Your task to perform on an android device: check storage Image 0: 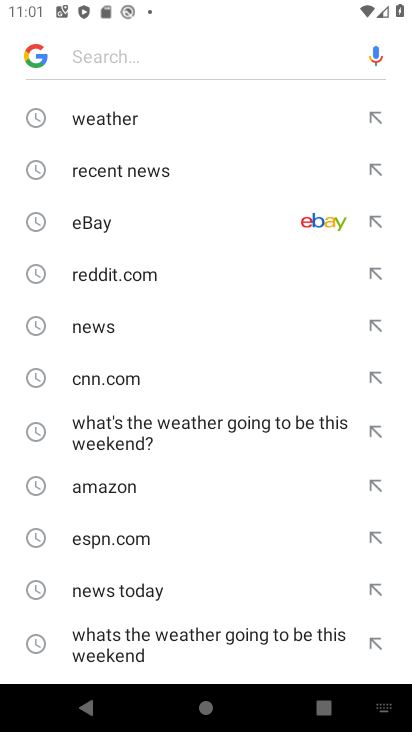
Step 0: press home button
Your task to perform on an android device: check storage Image 1: 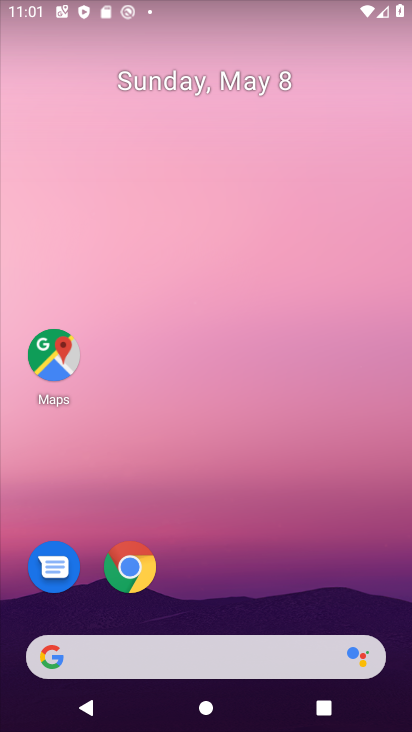
Step 1: drag from (216, 607) to (263, 146)
Your task to perform on an android device: check storage Image 2: 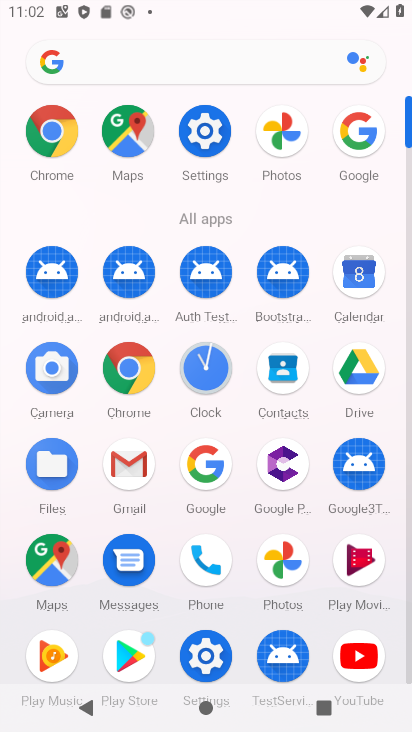
Step 2: click (201, 653)
Your task to perform on an android device: check storage Image 3: 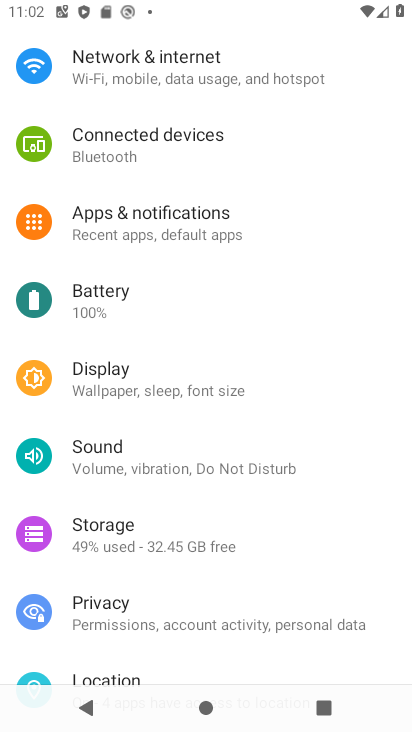
Step 3: click (140, 518)
Your task to perform on an android device: check storage Image 4: 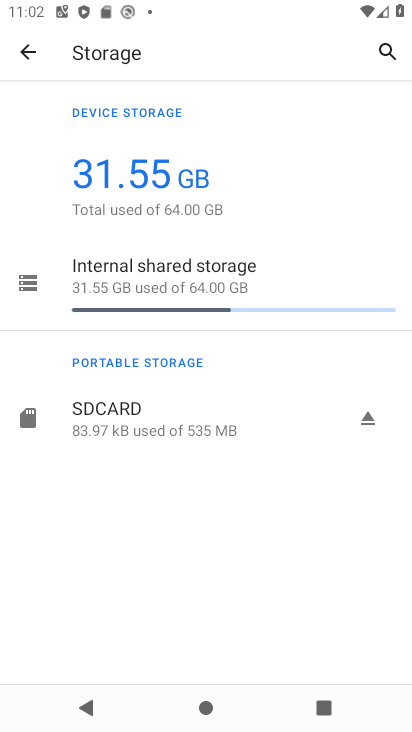
Step 4: task complete